Your task to perform on an android device: Open Google Maps and go to "Timeline" Image 0: 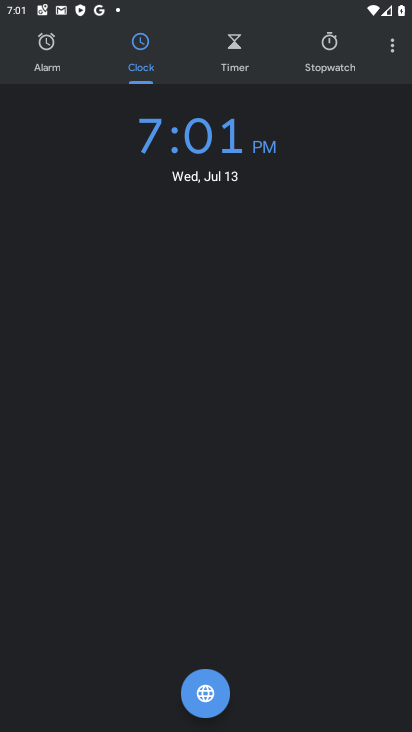
Step 0: press home button
Your task to perform on an android device: Open Google Maps and go to "Timeline" Image 1: 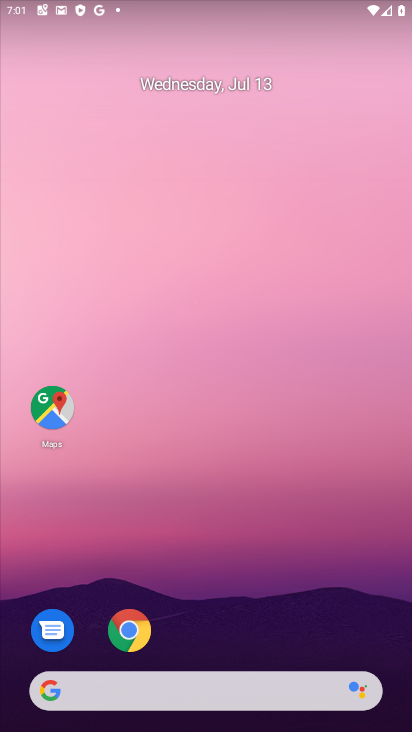
Step 1: drag from (338, 620) to (315, 50)
Your task to perform on an android device: Open Google Maps and go to "Timeline" Image 2: 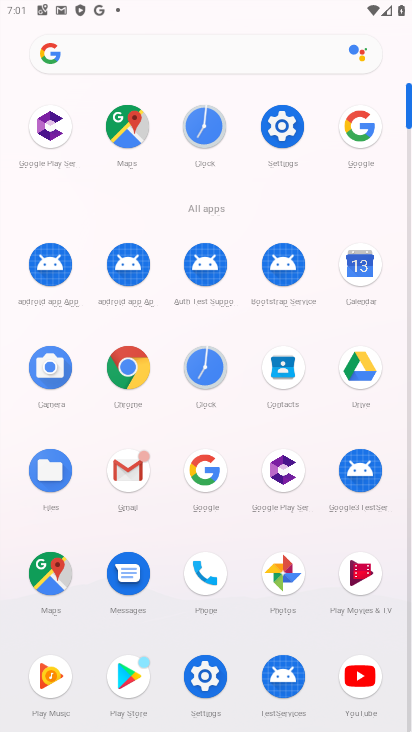
Step 2: click (33, 561)
Your task to perform on an android device: Open Google Maps and go to "Timeline" Image 3: 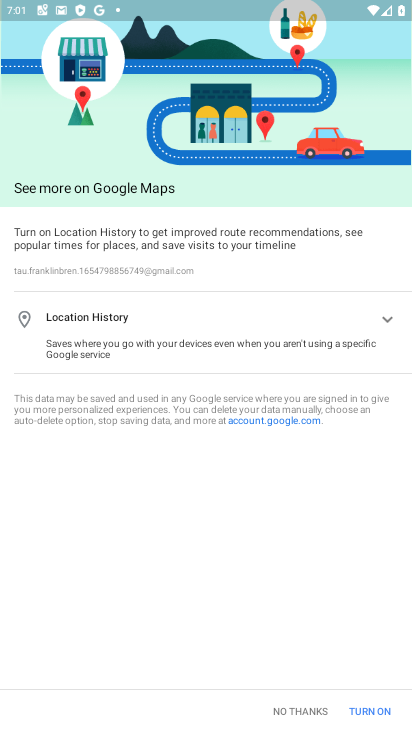
Step 3: click (377, 695)
Your task to perform on an android device: Open Google Maps and go to "Timeline" Image 4: 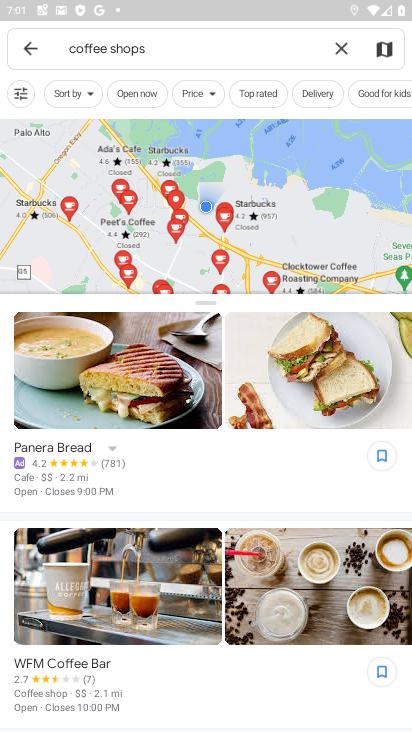
Step 4: press back button
Your task to perform on an android device: Open Google Maps and go to "Timeline" Image 5: 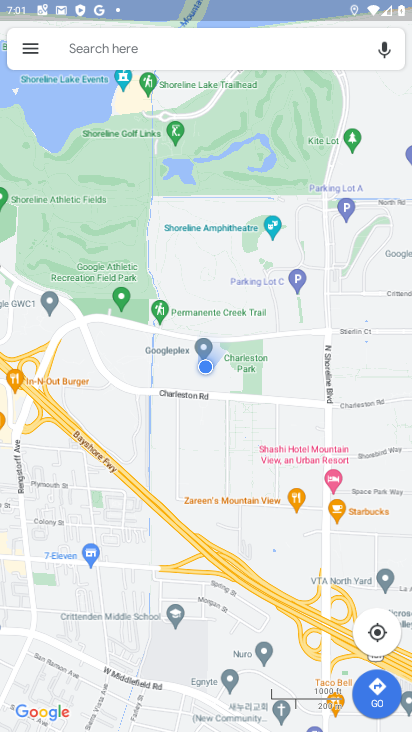
Step 5: click (22, 40)
Your task to perform on an android device: Open Google Maps and go to "Timeline" Image 6: 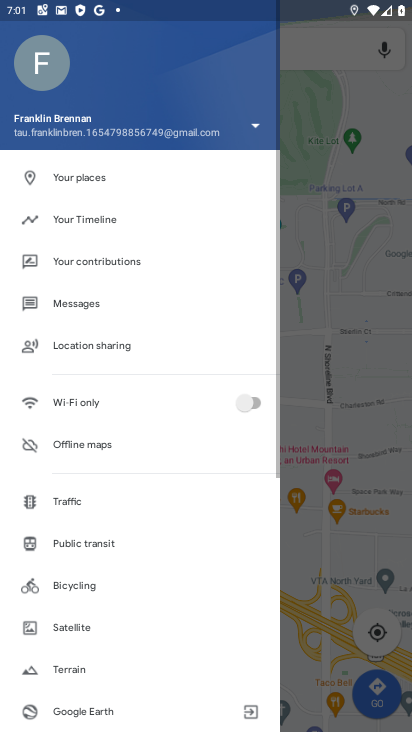
Step 6: click (65, 222)
Your task to perform on an android device: Open Google Maps and go to "Timeline" Image 7: 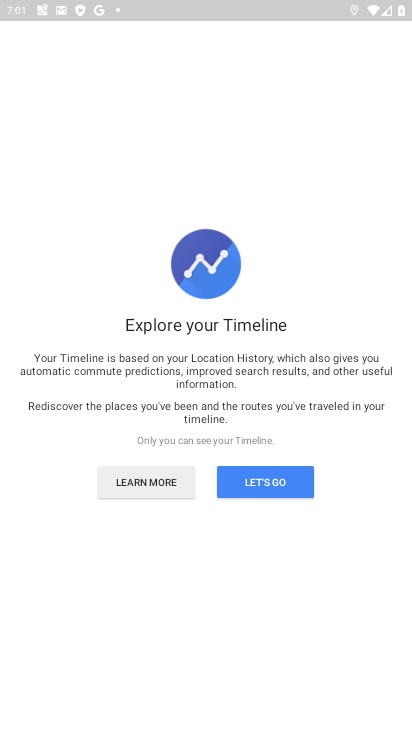
Step 7: task complete